Your task to perform on an android device: read, delete, or share a saved page in the chrome app Image 0: 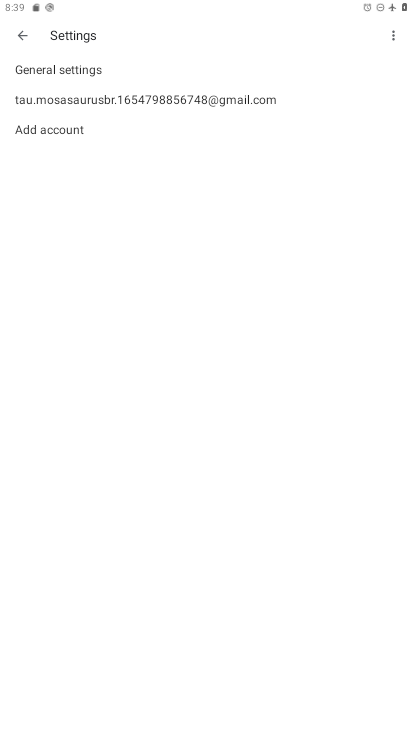
Step 0: press home button
Your task to perform on an android device: read, delete, or share a saved page in the chrome app Image 1: 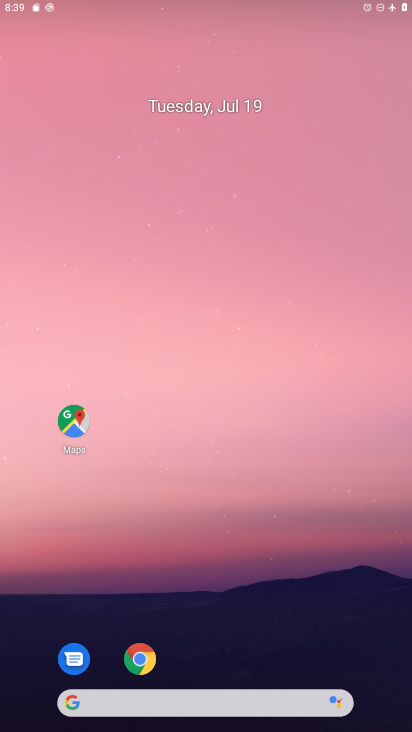
Step 1: drag from (219, 630) to (324, 86)
Your task to perform on an android device: read, delete, or share a saved page in the chrome app Image 2: 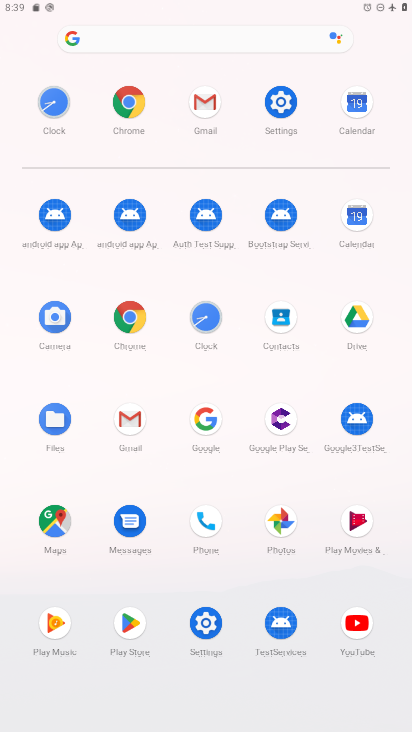
Step 2: click (122, 101)
Your task to perform on an android device: read, delete, or share a saved page in the chrome app Image 3: 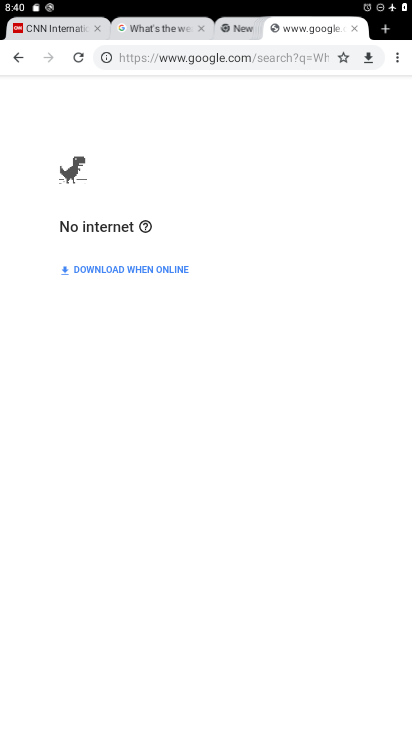
Step 3: click (406, 55)
Your task to perform on an android device: read, delete, or share a saved page in the chrome app Image 4: 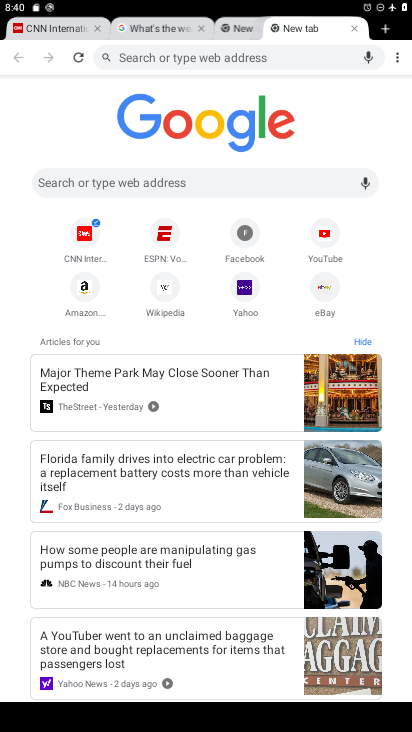
Step 4: click (400, 57)
Your task to perform on an android device: read, delete, or share a saved page in the chrome app Image 5: 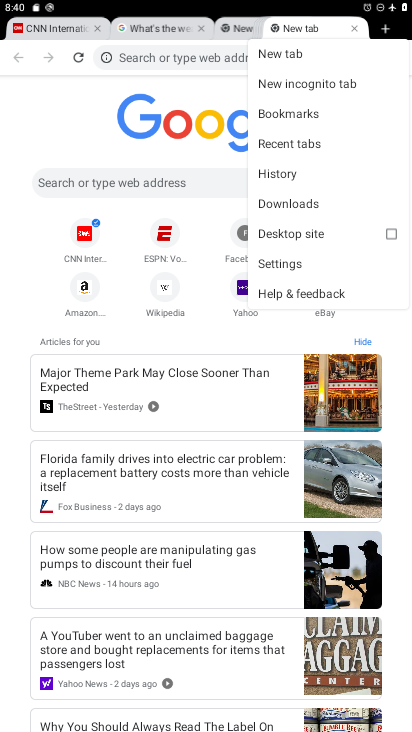
Step 5: click (299, 257)
Your task to perform on an android device: read, delete, or share a saved page in the chrome app Image 6: 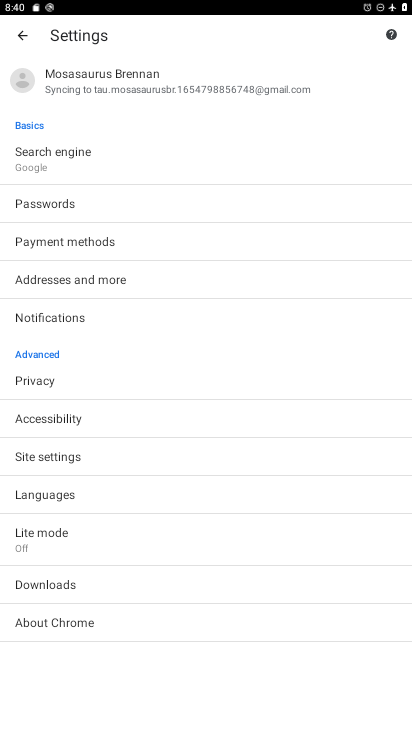
Step 6: task complete